Your task to perform on an android device: turn off notifications settings in the gmail app Image 0: 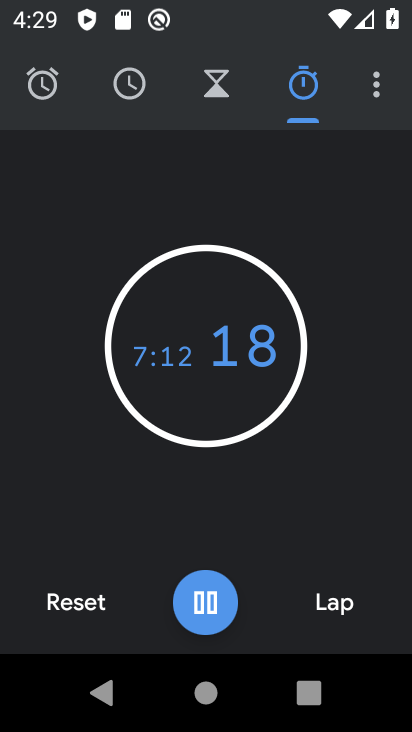
Step 0: press home button
Your task to perform on an android device: turn off notifications settings in the gmail app Image 1: 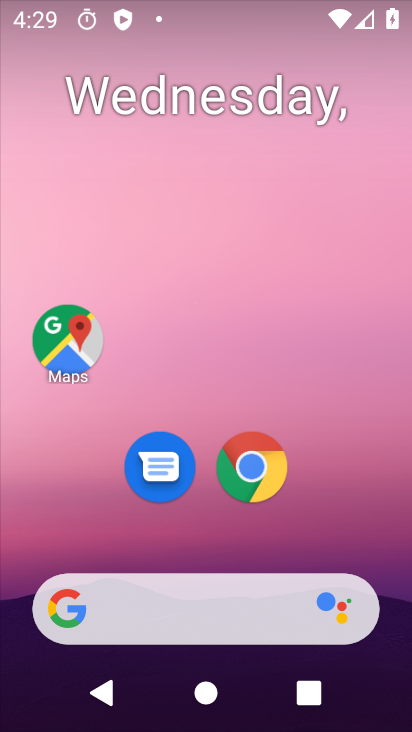
Step 1: drag from (390, 680) to (338, 204)
Your task to perform on an android device: turn off notifications settings in the gmail app Image 2: 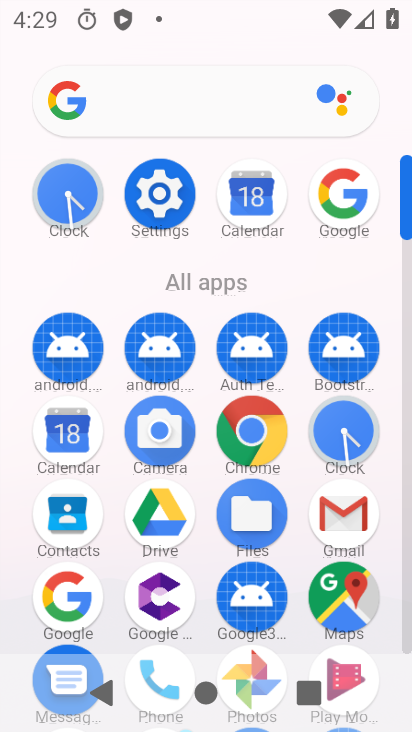
Step 2: click (341, 496)
Your task to perform on an android device: turn off notifications settings in the gmail app Image 3: 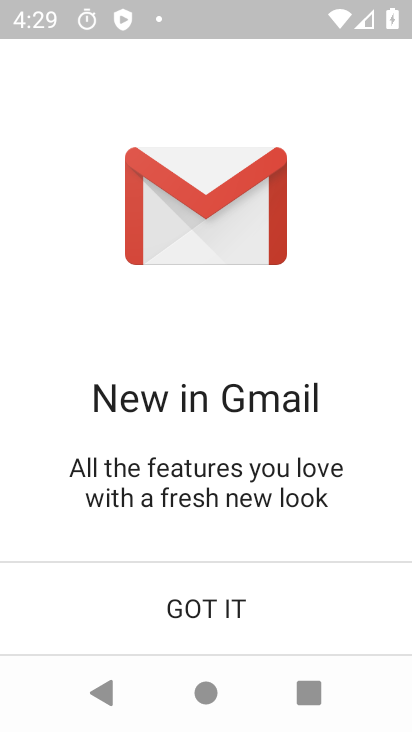
Step 3: click (201, 599)
Your task to perform on an android device: turn off notifications settings in the gmail app Image 4: 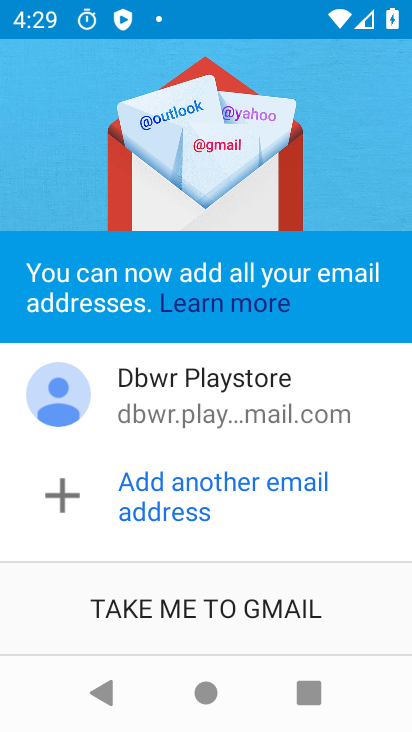
Step 4: click (224, 598)
Your task to perform on an android device: turn off notifications settings in the gmail app Image 5: 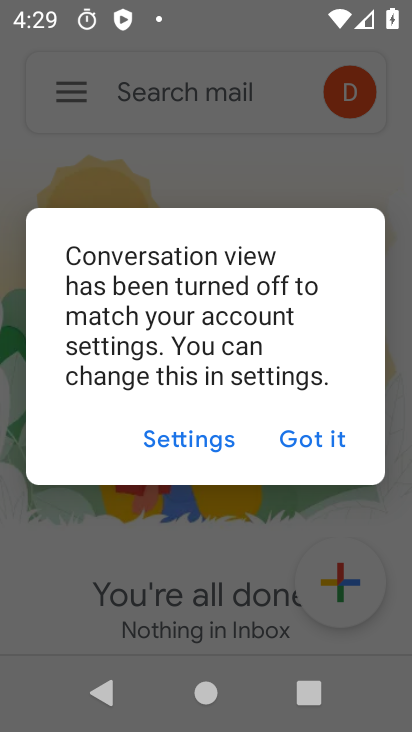
Step 5: click (294, 437)
Your task to perform on an android device: turn off notifications settings in the gmail app Image 6: 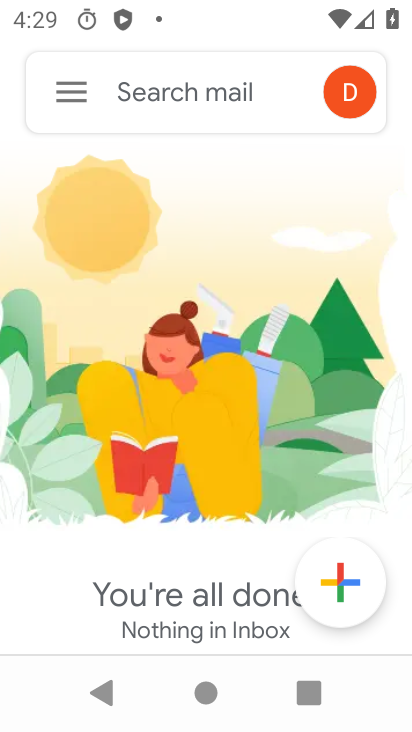
Step 6: click (68, 87)
Your task to perform on an android device: turn off notifications settings in the gmail app Image 7: 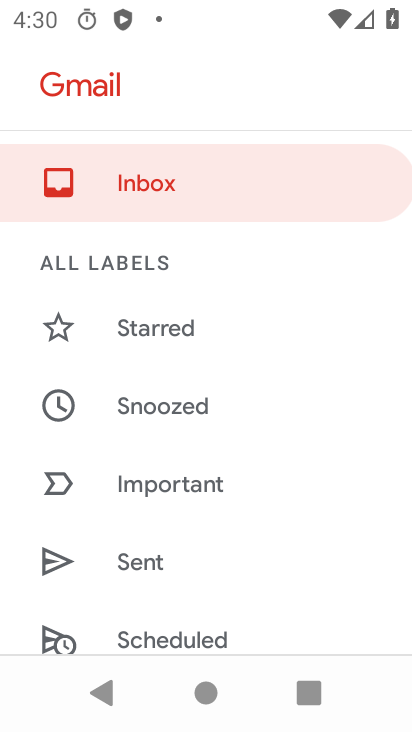
Step 7: drag from (264, 614) to (299, 353)
Your task to perform on an android device: turn off notifications settings in the gmail app Image 8: 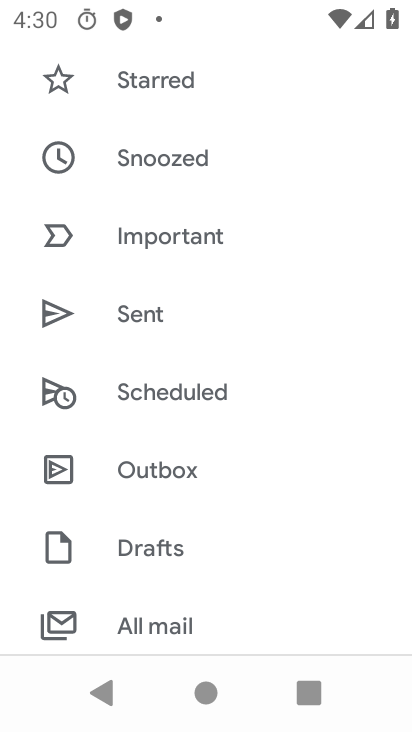
Step 8: drag from (280, 614) to (315, 356)
Your task to perform on an android device: turn off notifications settings in the gmail app Image 9: 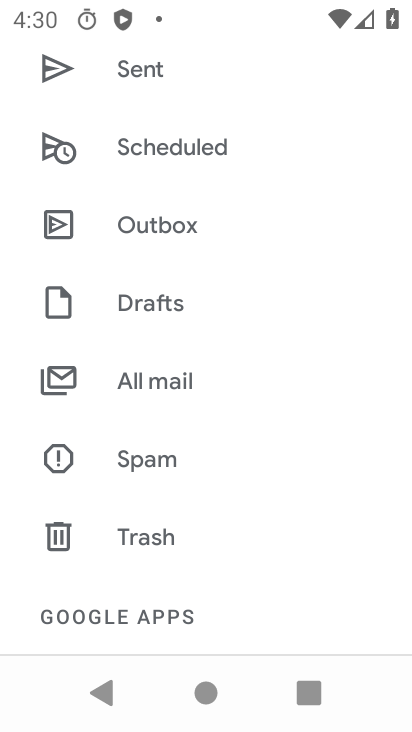
Step 9: drag from (213, 557) to (224, 212)
Your task to perform on an android device: turn off notifications settings in the gmail app Image 10: 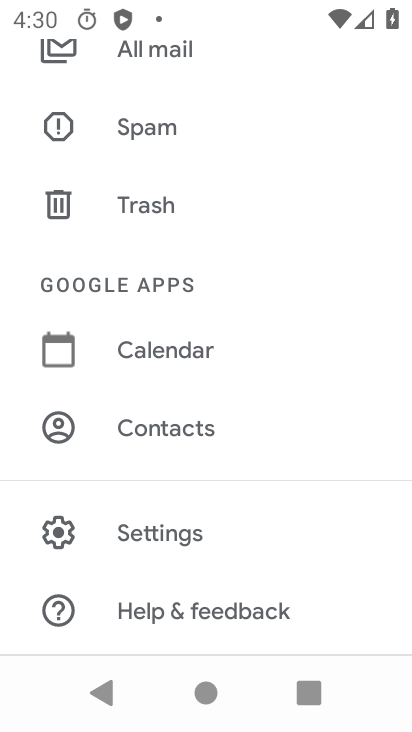
Step 10: click (123, 527)
Your task to perform on an android device: turn off notifications settings in the gmail app Image 11: 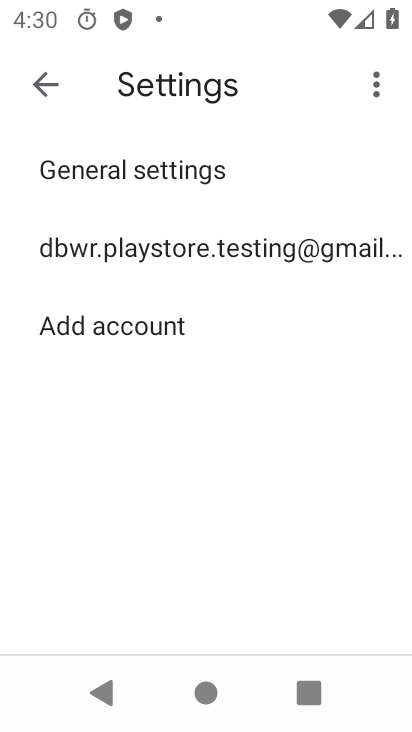
Step 11: click (61, 176)
Your task to perform on an android device: turn off notifications settings in the gmail app Image 12: 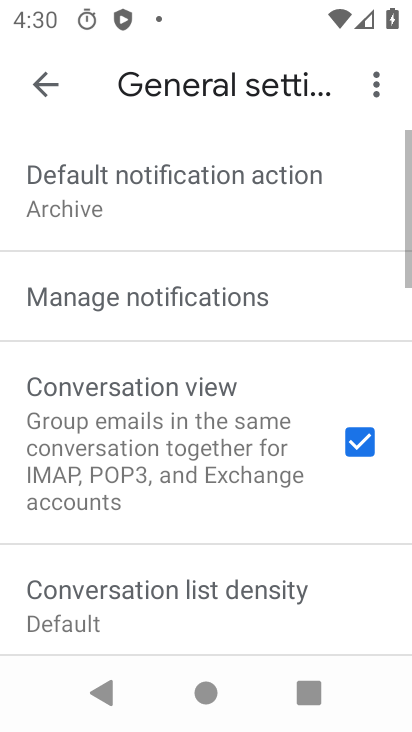
Step 12: click (111, 293)
Your task to perform on an android device: turn off notifications settings in the gmail app Image 13: 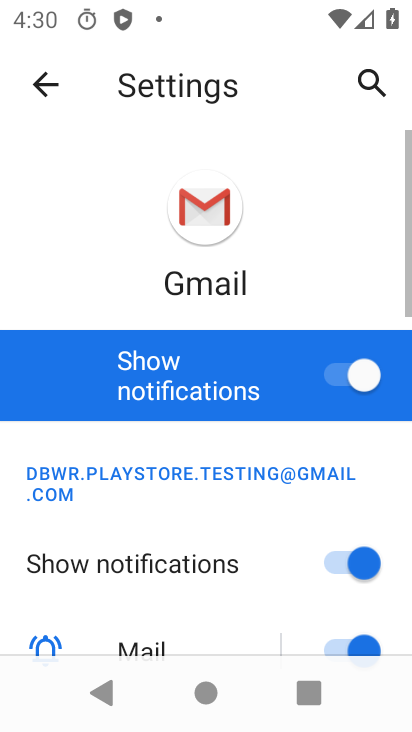
Step 13: click (339, 364)
Your task to perform on an android device: turn off notifications settings in the gmail app Image 14: 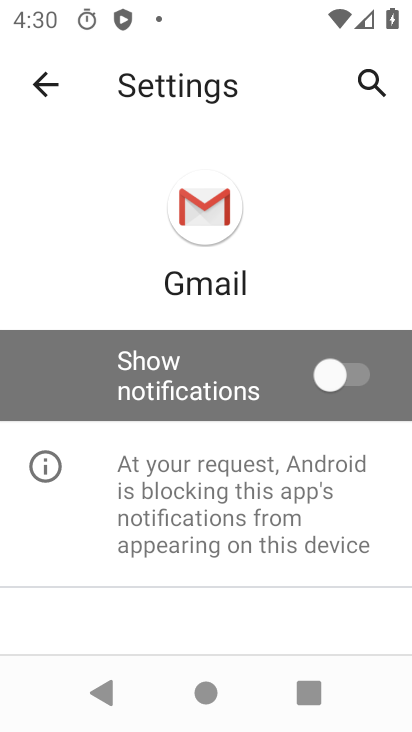
Step 14: task complete